Your task to perform on an android device: Is it going to rain today? Image 0: 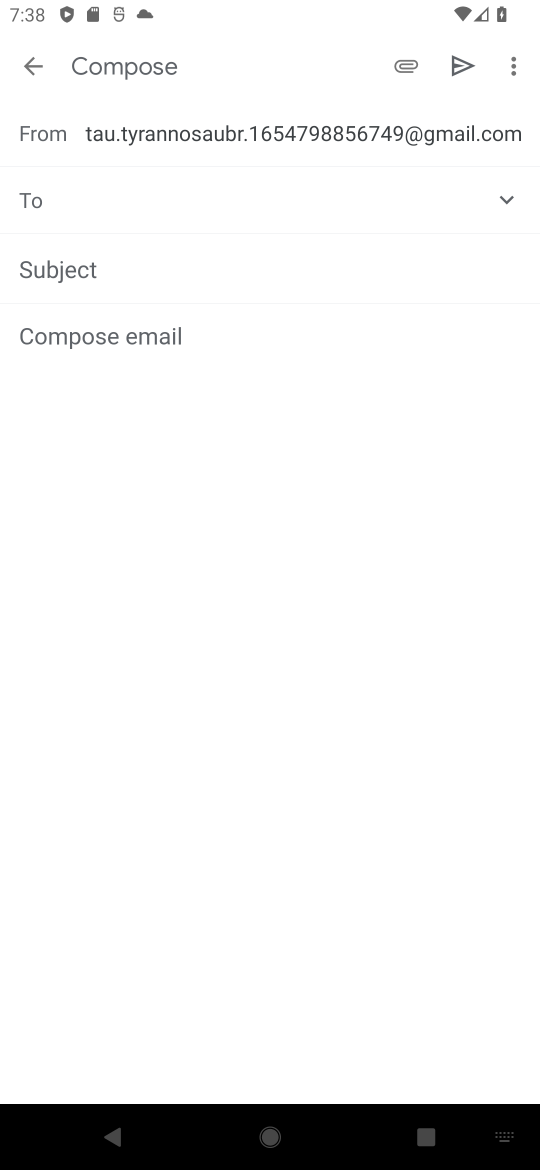
Step 0: press home button
Your task to perform on an android device: Is it going to rain today? Image 1: 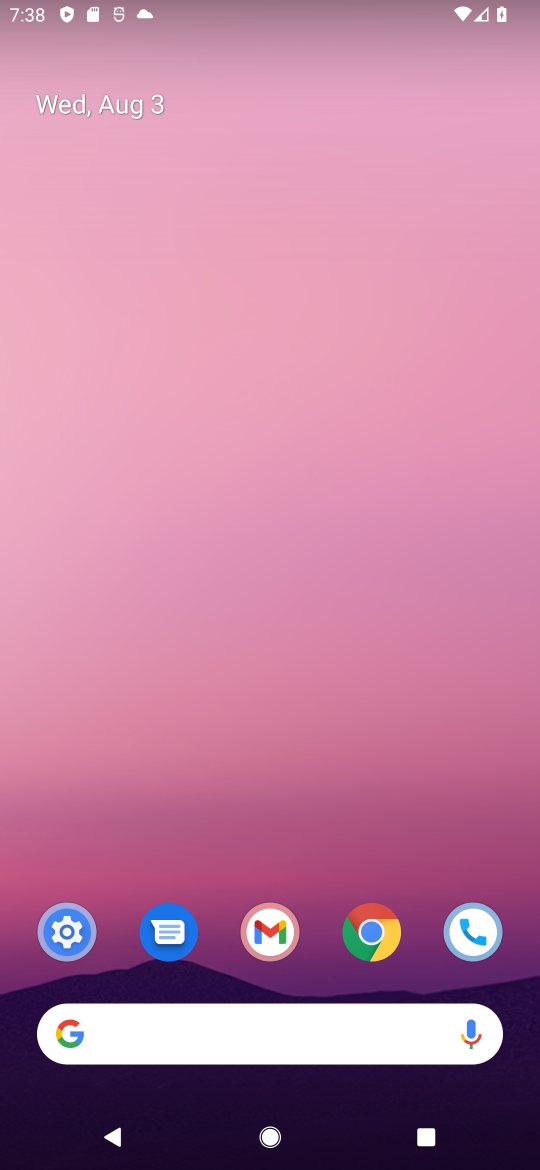
Step 1: click (238, 1033)
Your task to perform on an android device: Is it going to rain today? Image 2: 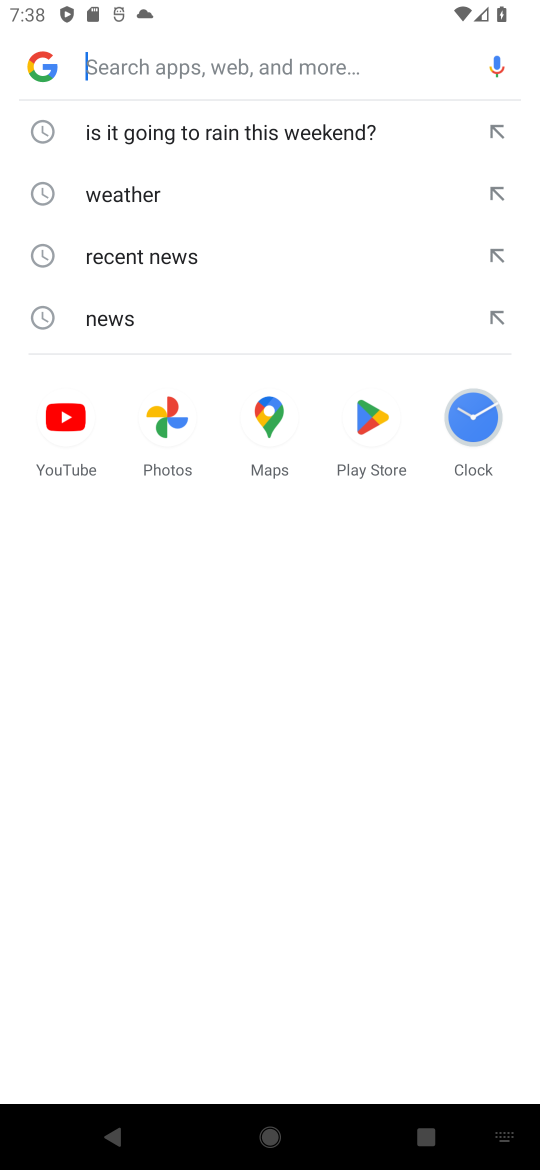
Step 2: type "Is it going to rain today?"
Your task to perform on an android device: Is it going to rain today? Image 3: 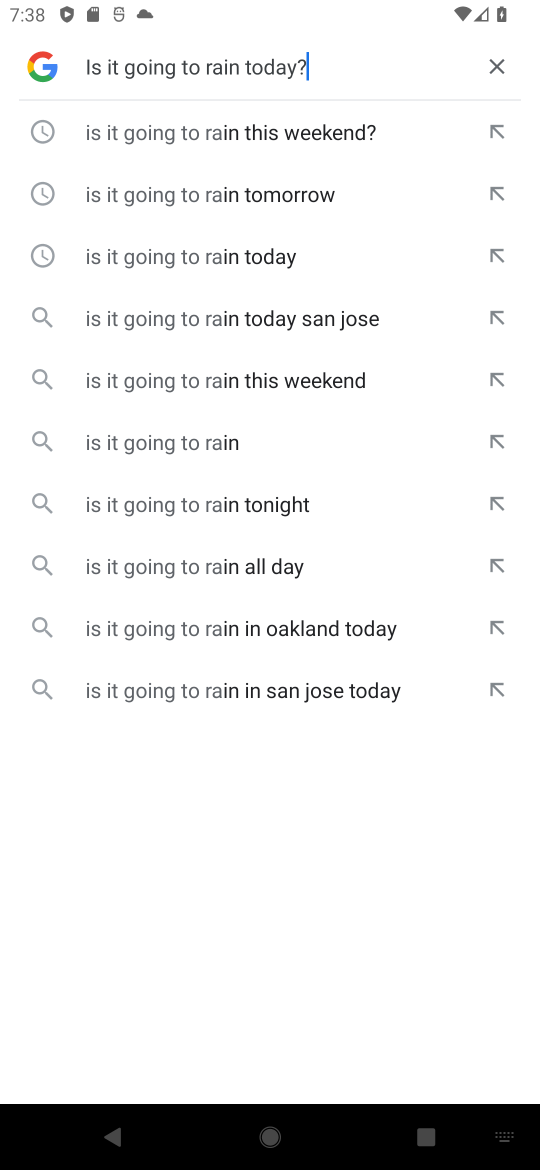
Step 3: type ""
Your task to perform on an android device: Is it going to rain today? Image 4: 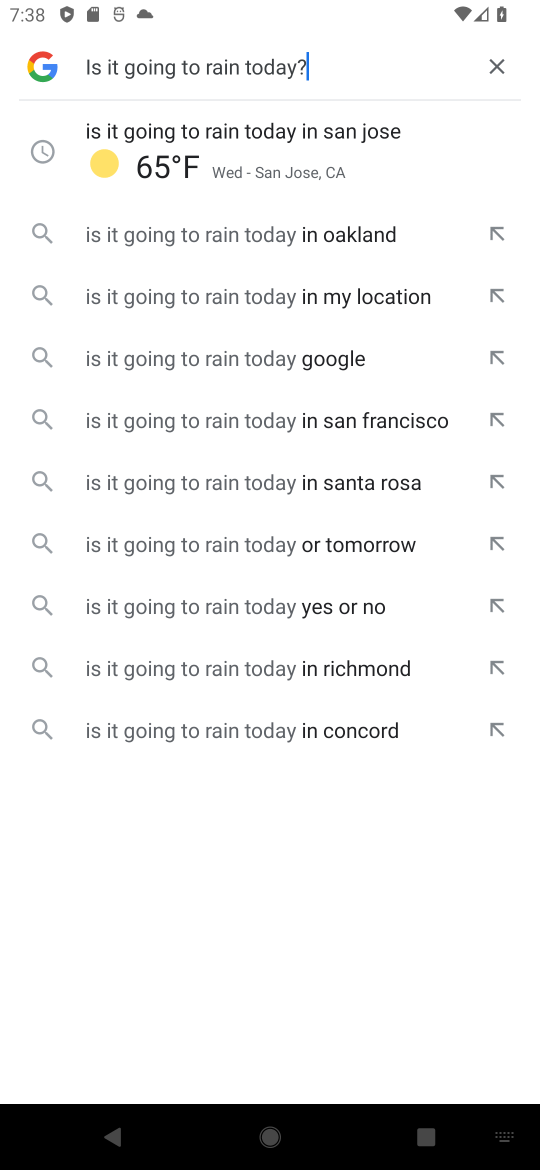
Step 4: press enter
Your task to perform on an android device: Is it going to rain today? Image 5: 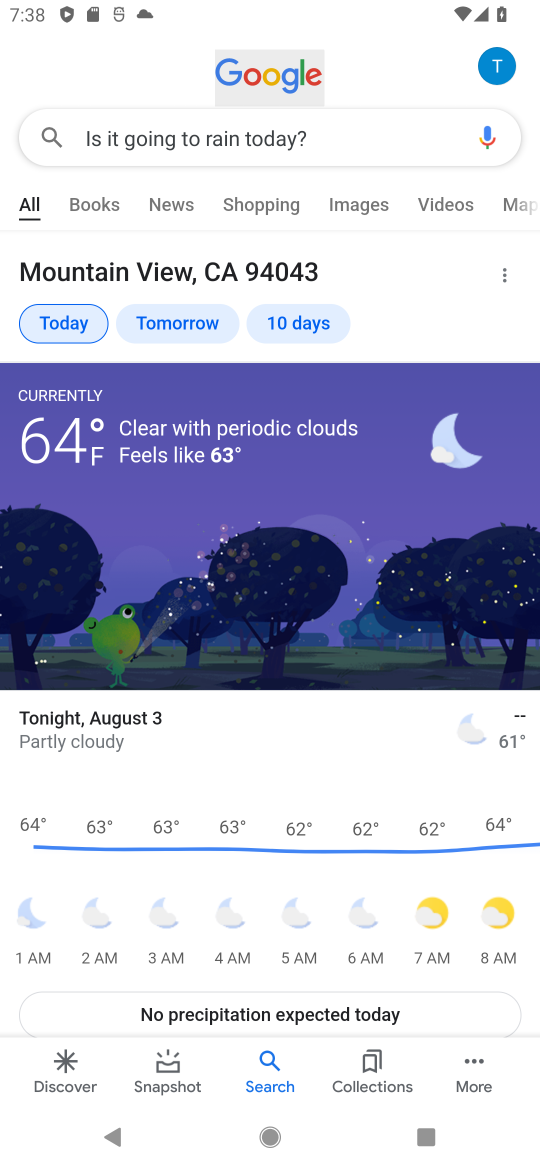
Step 5: task complete